Your task to perform on an android device: turn on wifi Image 0: 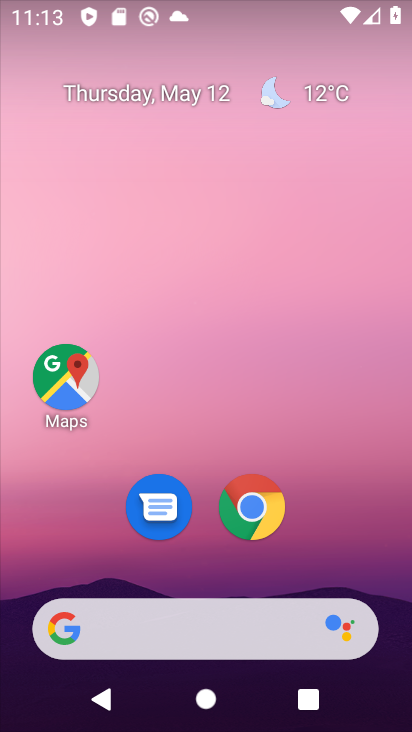
Step 0: drag from (210, 565) to (262, 15)
Your task to perform on an android device: turn on wifi Image 1: 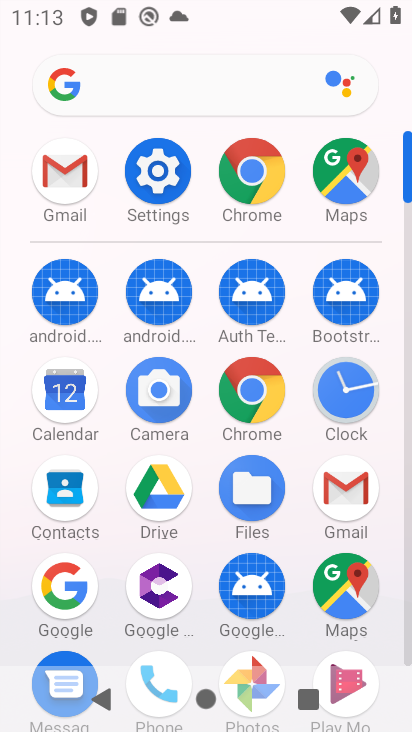
Step 1: click (156, 200)
Your task to perform on an android device: turn on wifi Image 2: 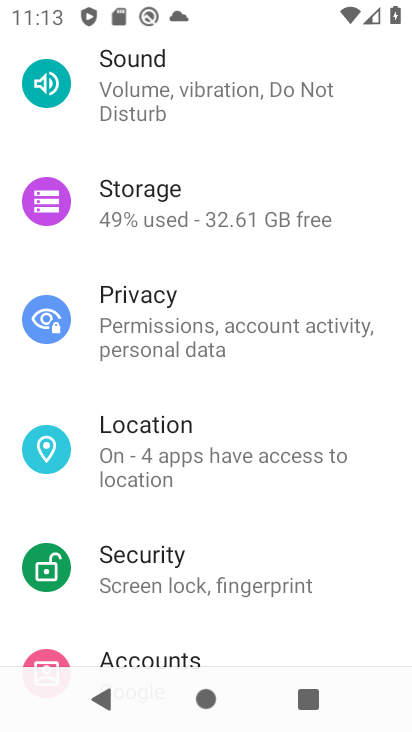
Step 2: drag from (263, 215) to (228, 711)
Your task to perform on an android device: turn on wifi Image 3: 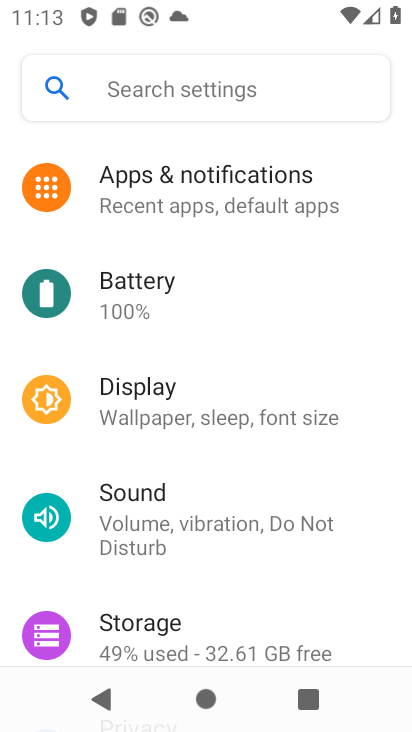
Step 3: drag from (229, 182) to (254, 544)
Your task to perform on an android device: turn on wifi Image 4: 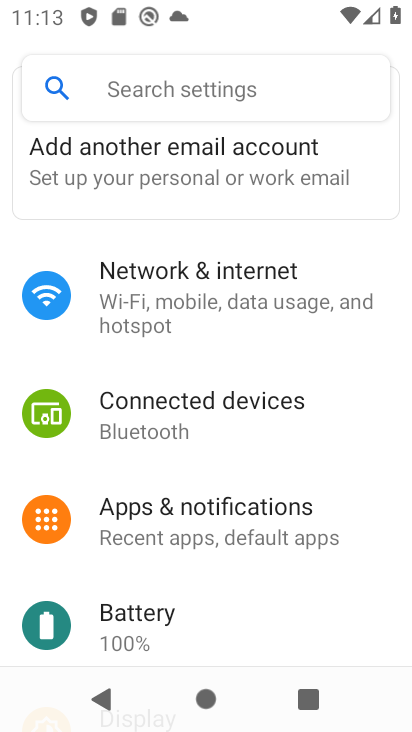
Step 4: drag from (196, 184) to (196, 630)
Your task to perform on an android device: turn on wifi Image 5: 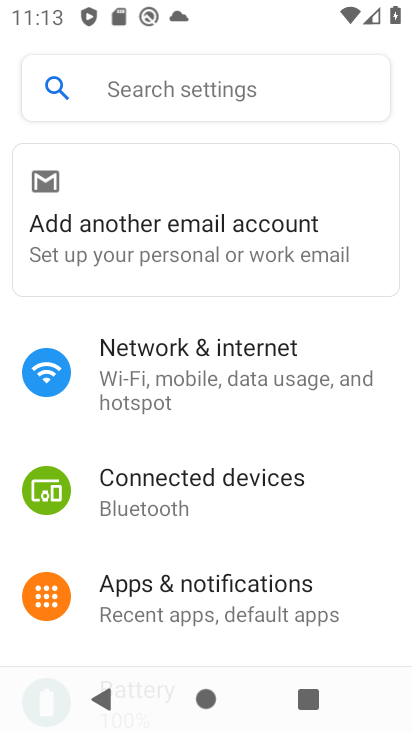
Step 5: click (214, 379)
Your task to perform on an android device: turn on wifi Image 6: 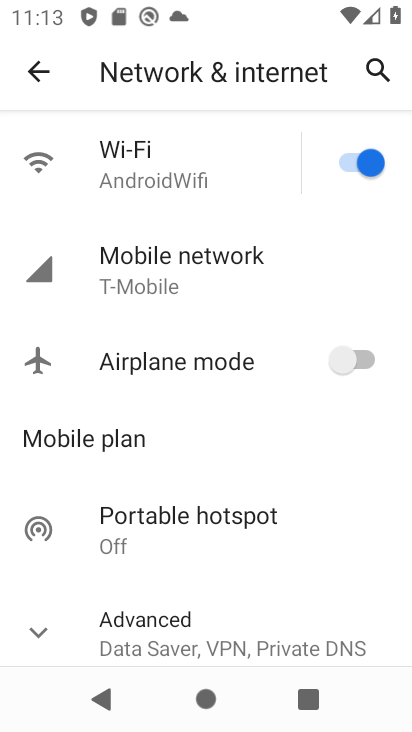
Step 6: task complete